Your task to perform on an android device: change the clock style Image 0: 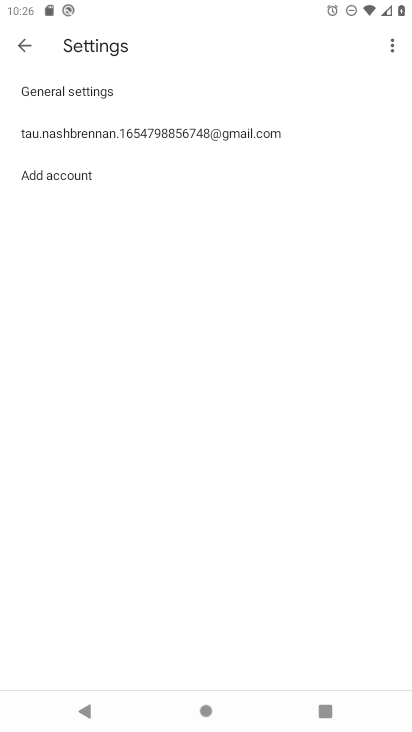
Step 0: press back button
Your task to perform on an android device: change the clock style Image 1: 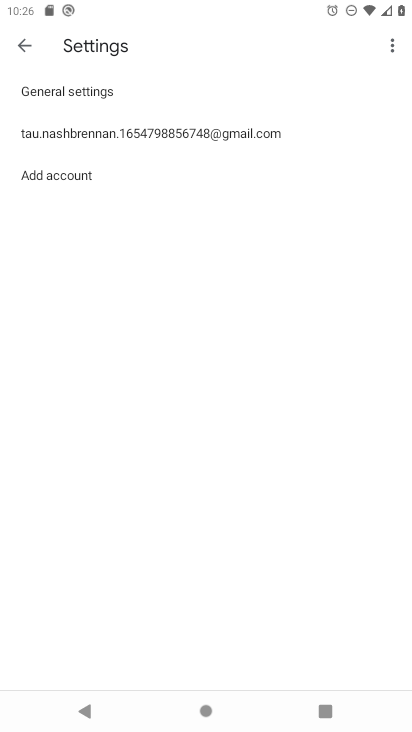
Step 1: press back button
Your task to perform on an android device: change the clock style Image 2: 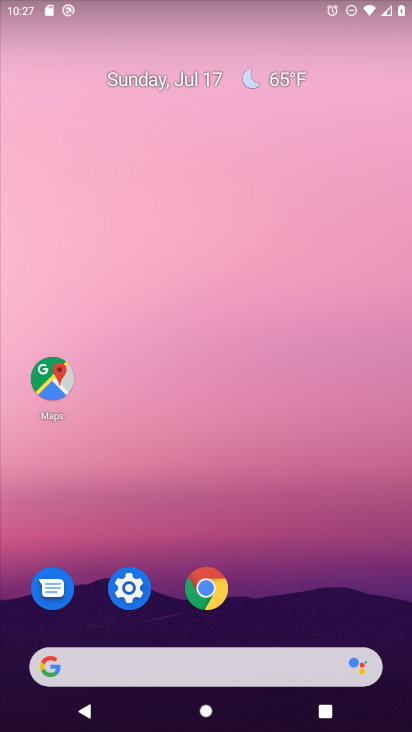
Step 2: drag from (258, 610) to (203, 158)
Your task to perform on an android device: change the clock style Image 3: 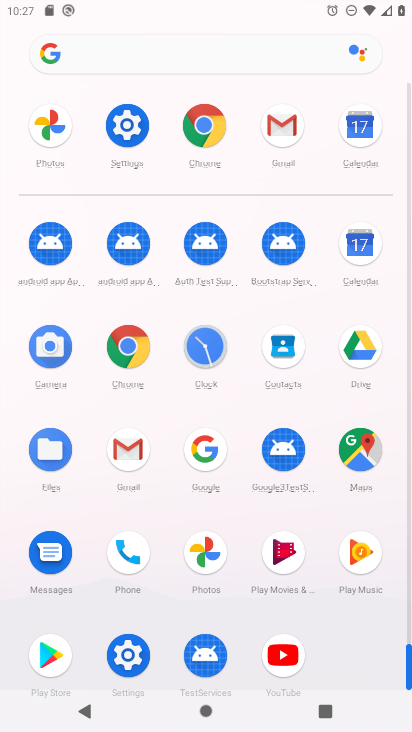
Step 3: click (199, 342)
Your task to perform on an android device: change the clock style Image 4: 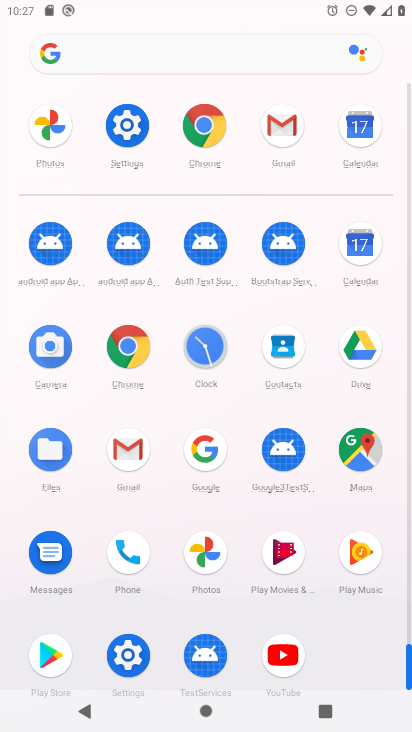
Step 4: click (204, 337)
Your task to perform on an android device: change the clock style Image 5: 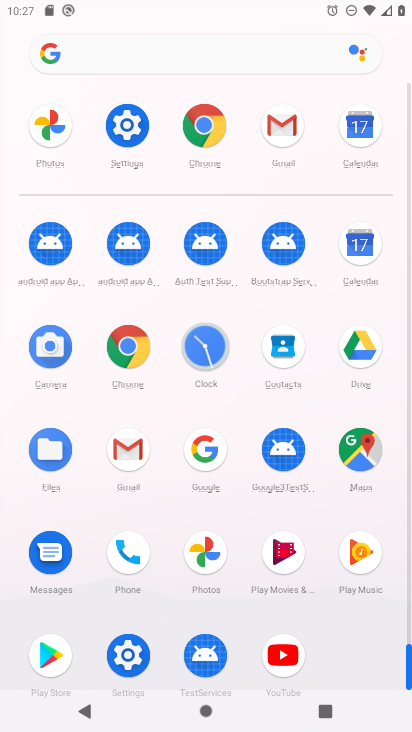
Step 5: click (205, 337)
Your task to perform on an android device: change the clock style Image 6: 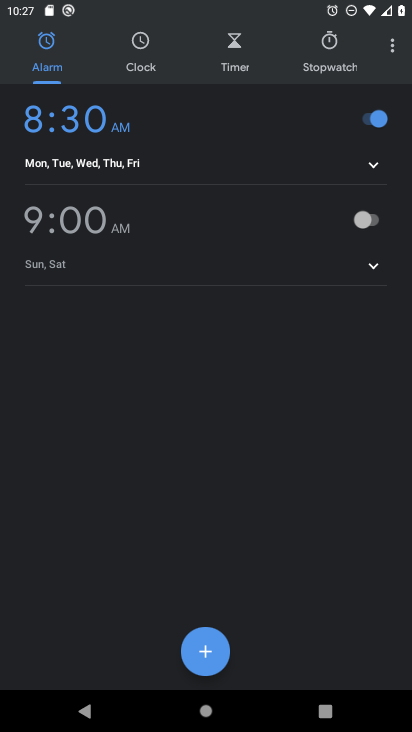
Step 6: click (135, 45)
Your task to perform on an android device: change the clock style Image 7: 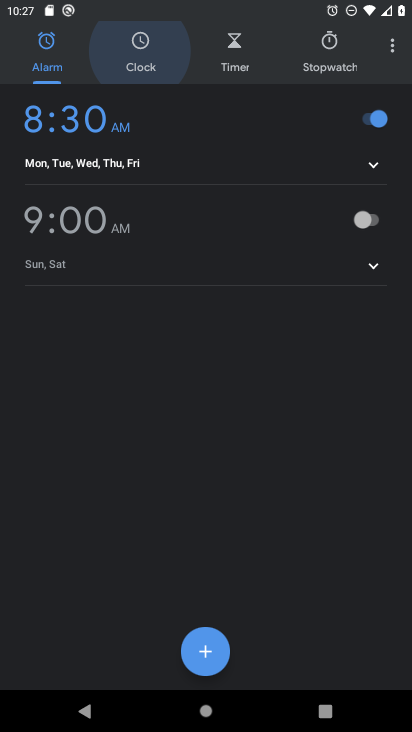
Step 7: click (135, 45)
Your task to perform on an android device: change the clock style Image 8: 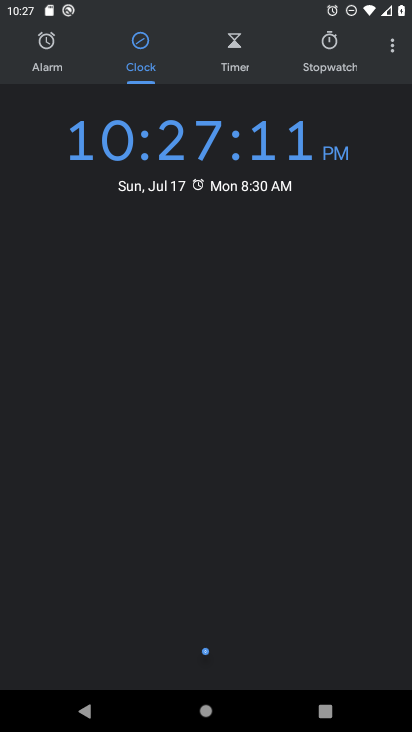
Step 8: click (134, 44)
Your task to perform on an android device: change the clock style Image 9: 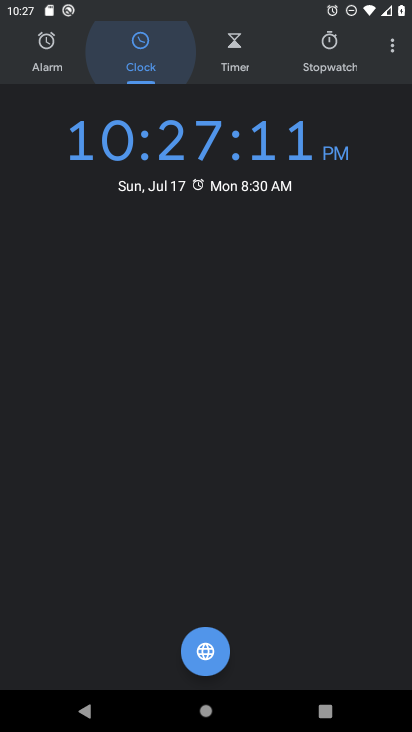
Step 9: click (134, 44)
Your task to perform on an android device: change the clock style Image 10: 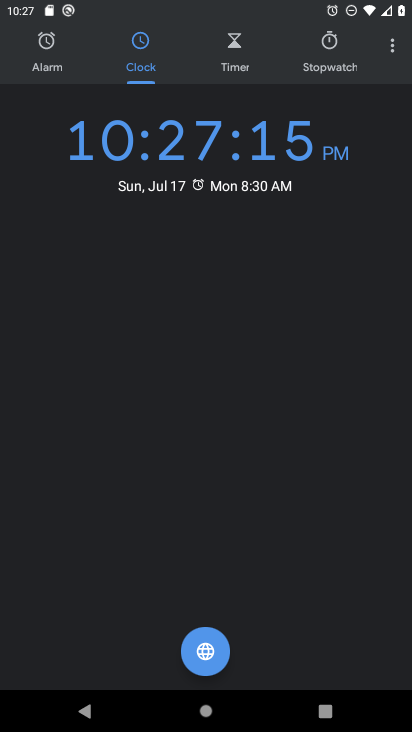
Step 10: click (390, 49)
Your task to perform on an android device: change the clock style Image 11: 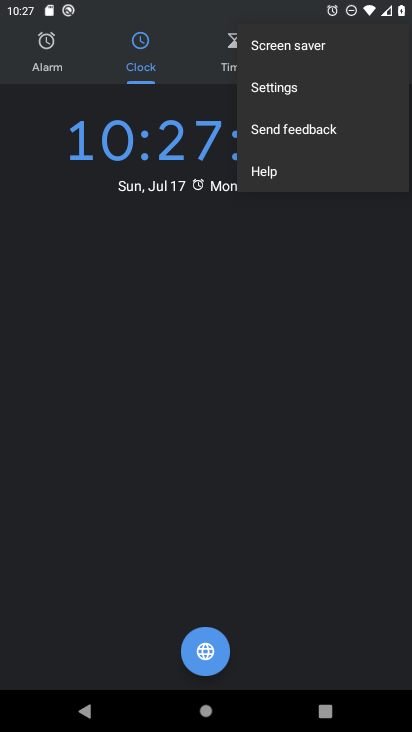
Step 11: click (285, 86)
Your task to perform on an android device: change the clock style Image 12: 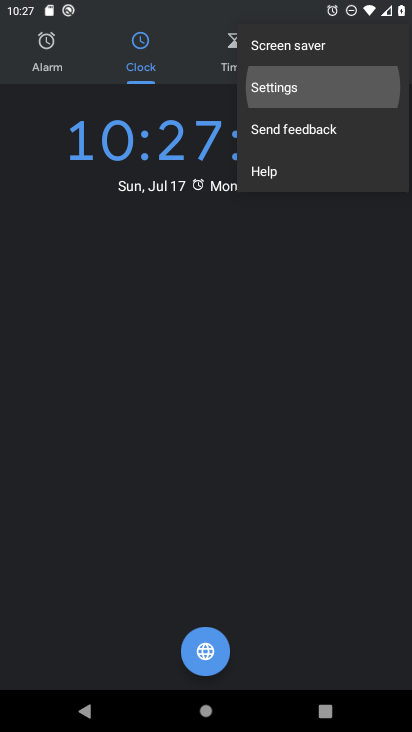
Step 12: click (284, 86)
Your task to perform on an android device: change the clock style Image 13: 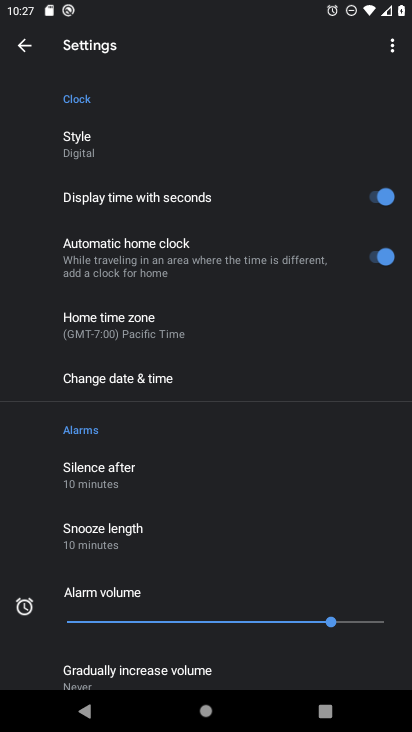
Step 13: click (112, 130)
Your task to perform on an android device: change the clock style Image 14: 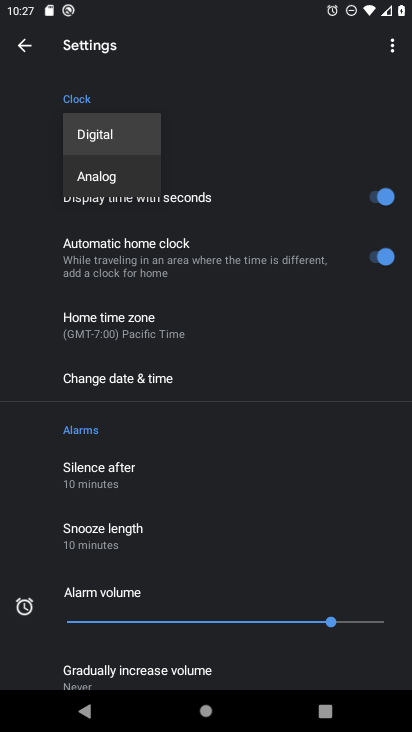
Step 14: click (113, 177)
Your task to perform on an android device: change the clock style Image 15: 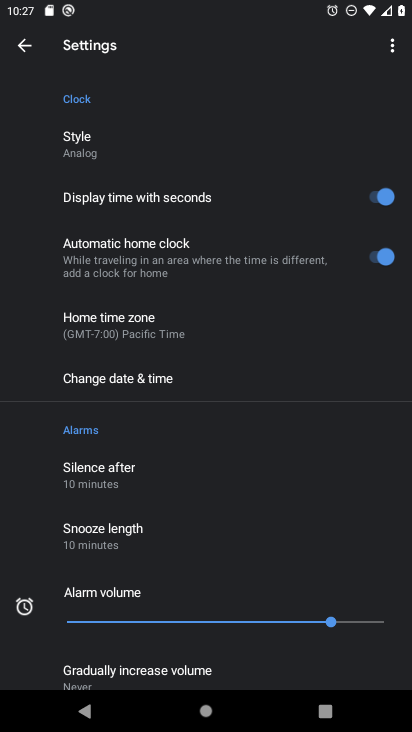
Step 15: task complete